Your task to perform on an android device: Go to location settings Image 0: 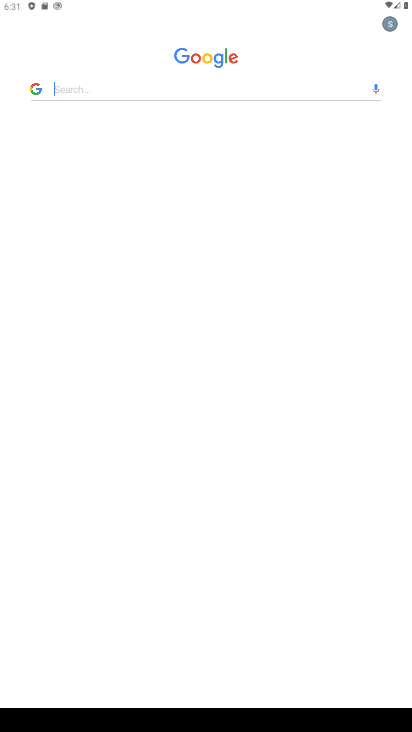
Step 0: press home button
Your task to perform on an android device: Go to location settings Image 1: 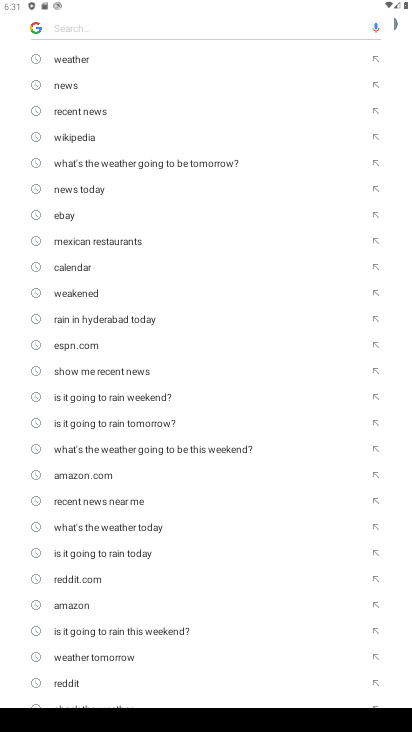
Step 1: drag from (383, 671) to (208, 23)
Your task to perform on an android device: Go to location settings Image 2: 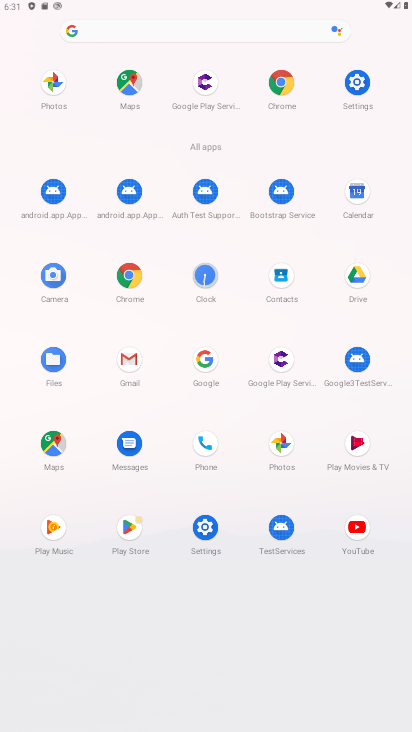
Step 2: click (207, 534)
Your task to perform on an android device: Go to location settings Image 3: 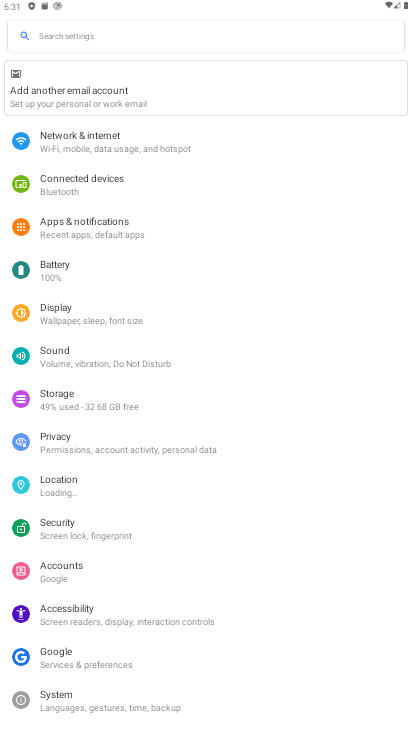
Step 3: click (70, 489)
Your task to perform on an android device: Go to location settings Image 4: 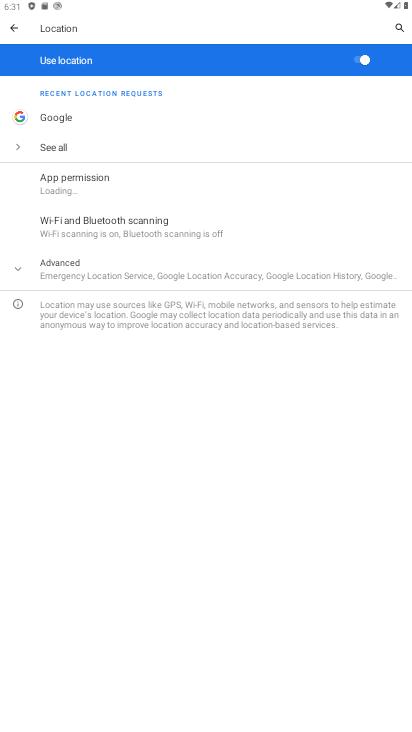
Step 4: task complete